Your task to perform on an android device: uninstall "Grab" Image 0: 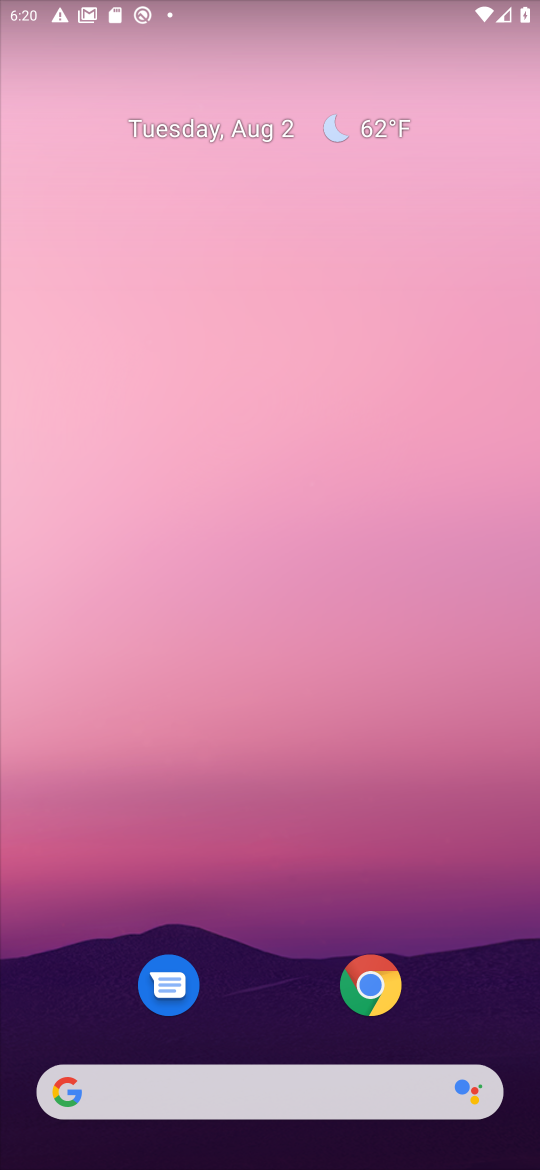
Step 0: drag from (256, 970) to (219, 327)
Your task to perform on an android device: uninstall "Grab" Image 1: 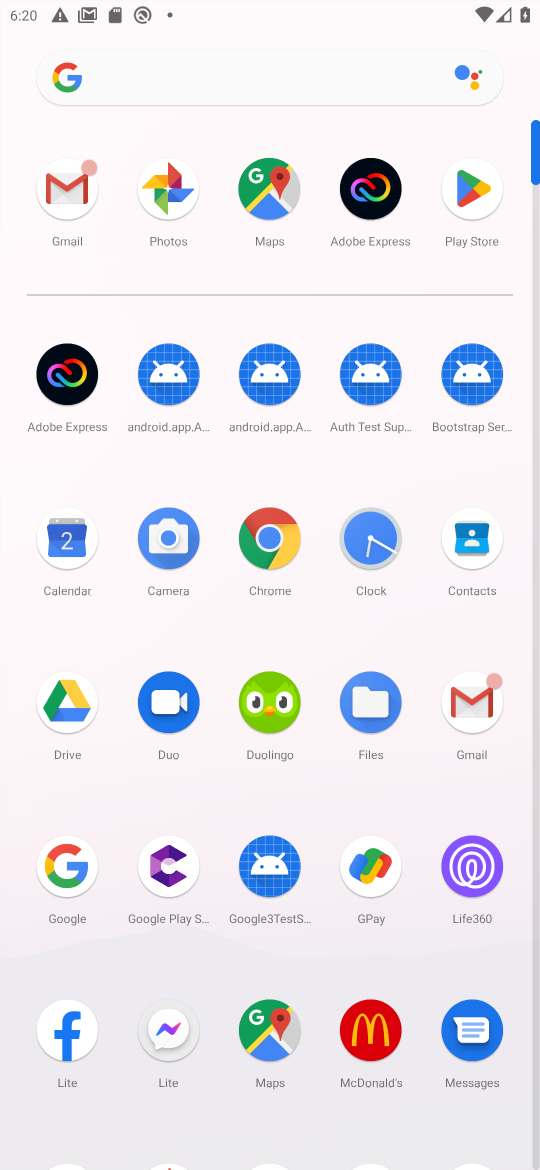
Step 1: click (465, 200)
Your task to perform on an android device: uninstall "Grab" Image 2: 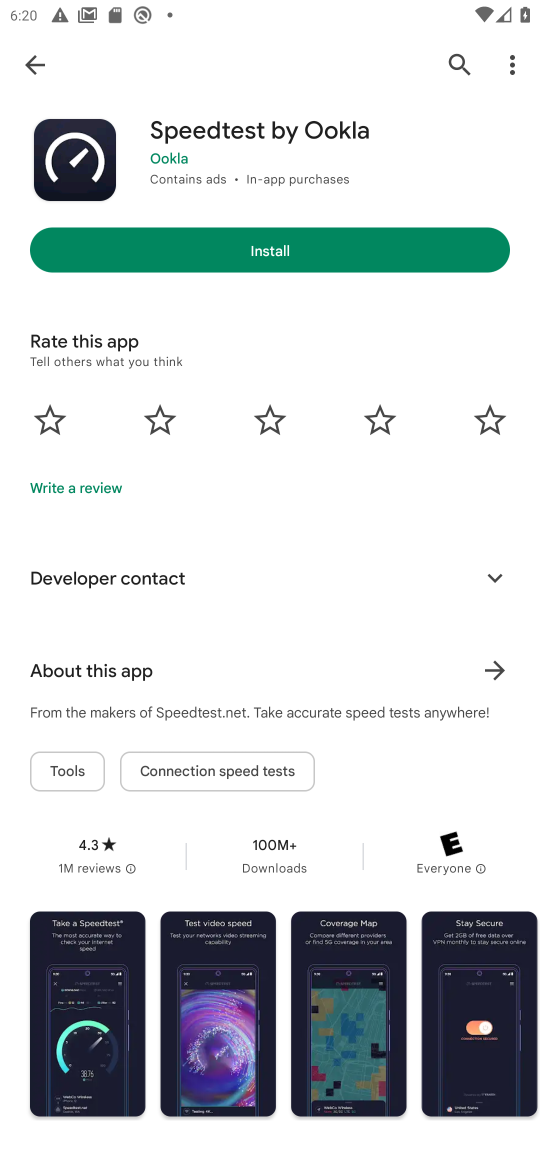
Step 2: click (466, 77)
Your task to perform on an android device: uninstall "Grab" Image 3: 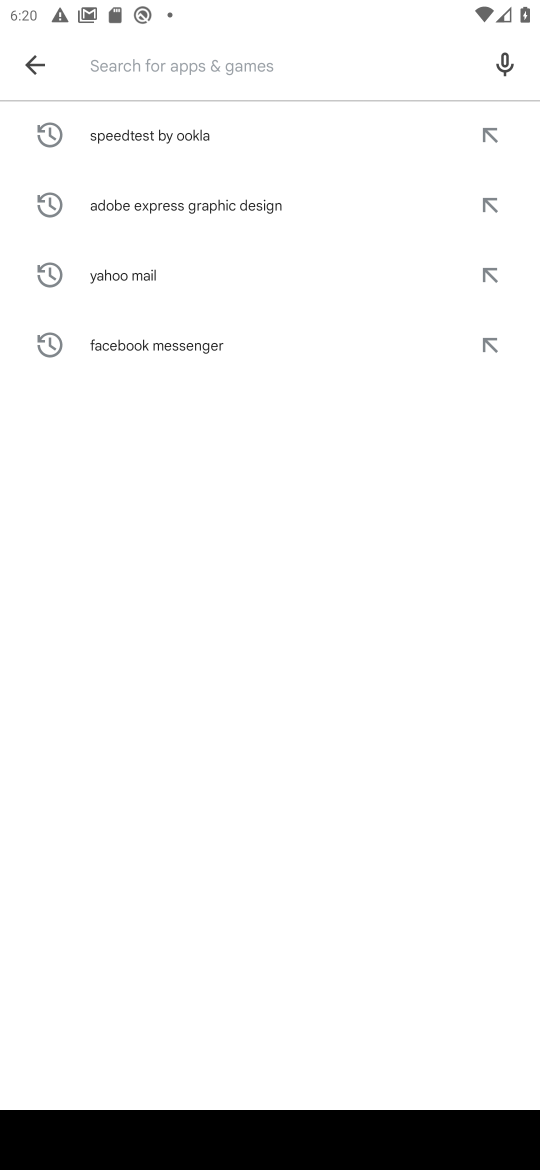
Step 3: type "Grab"
Your task to perform on an android device: uninstall "Grab" Image 4: 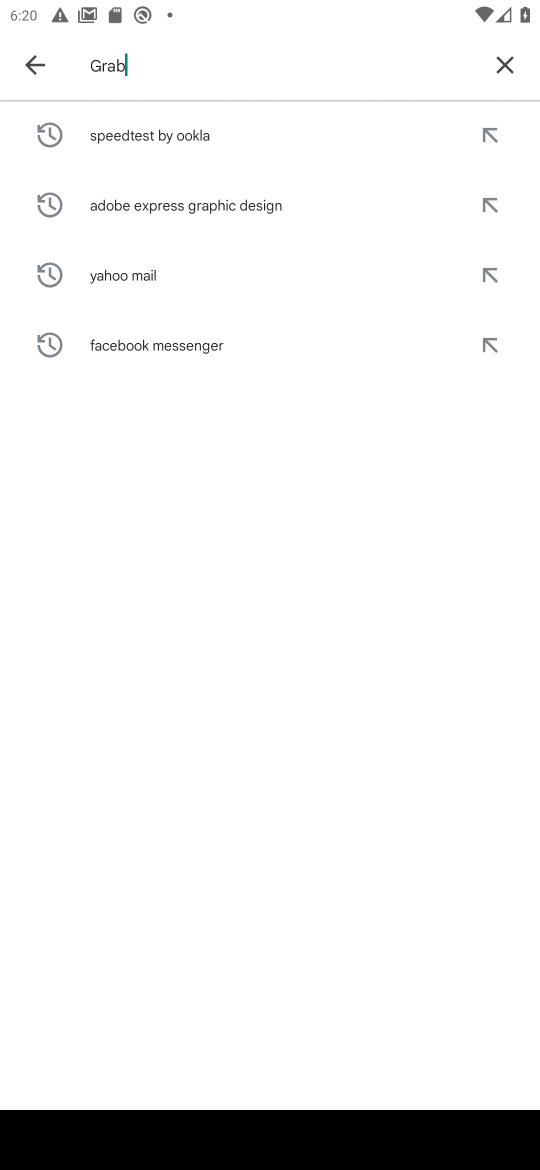
Step 4: type ""
Your task to perform on an android device: uninstall "Grab" Image 5: 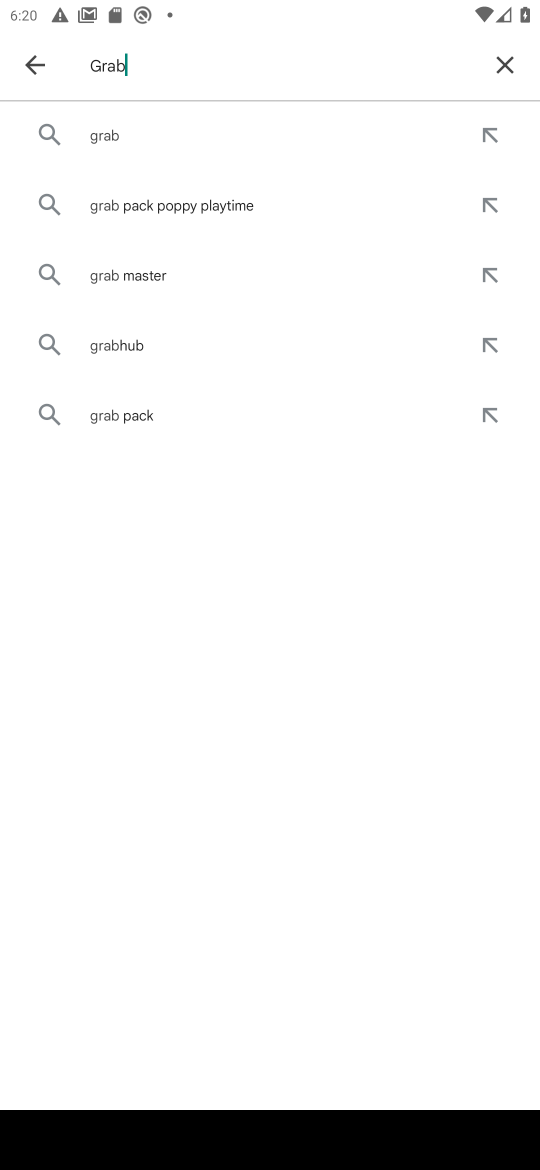
Step 5: click (177, 132)
Your task to perform on an android device: uninstall "Grab" Image 6: 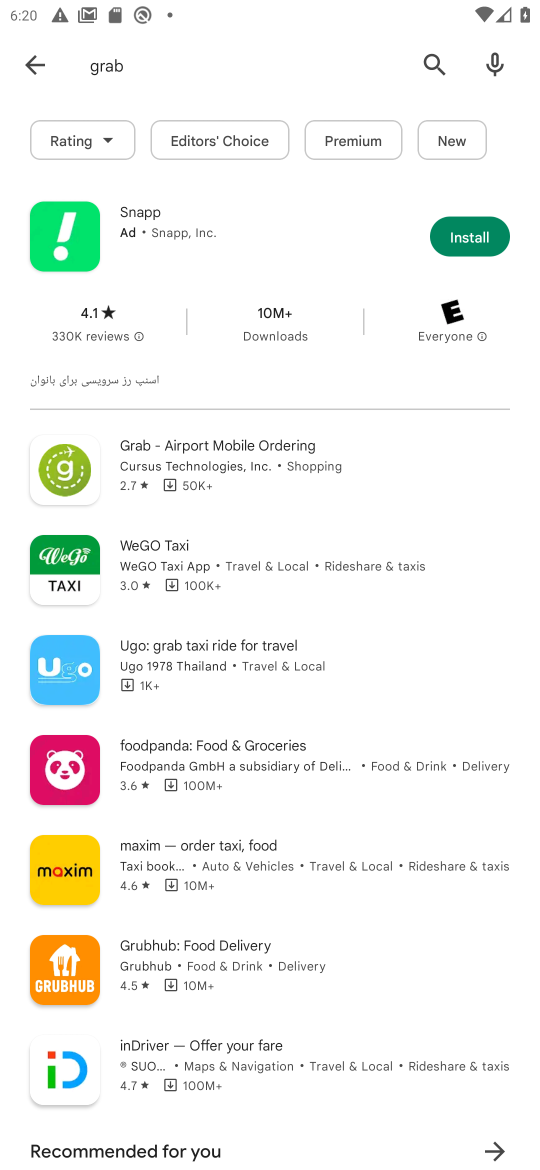
Step 6: click (156, 456)
Your task to perform on an android device: uninstall "Grab" Image 7: 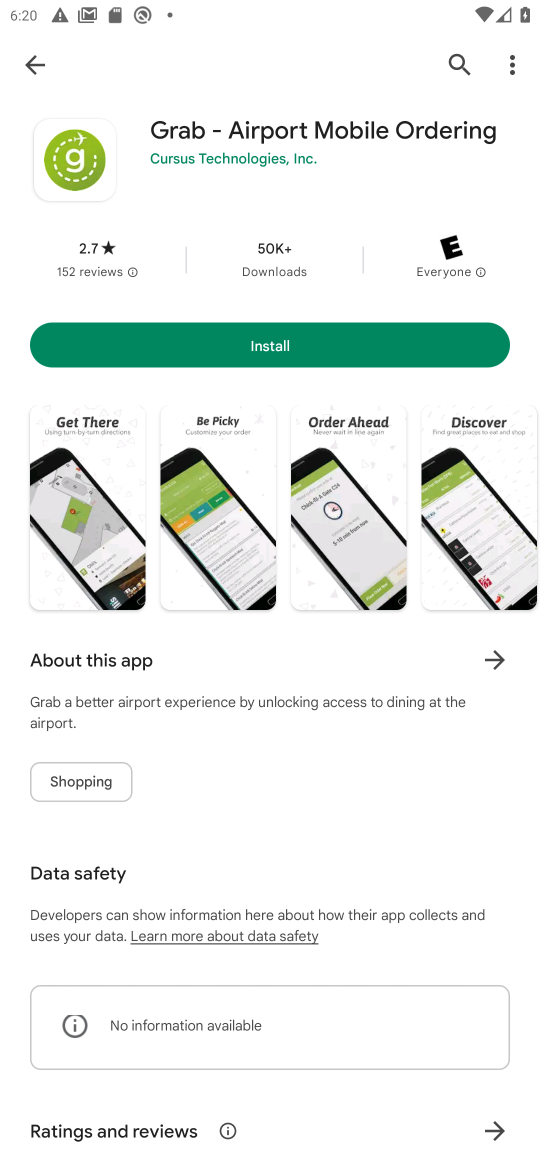
Step 7: task complete